Your task to perform on an android device: manage bookmarks in the chrome app Image 0: 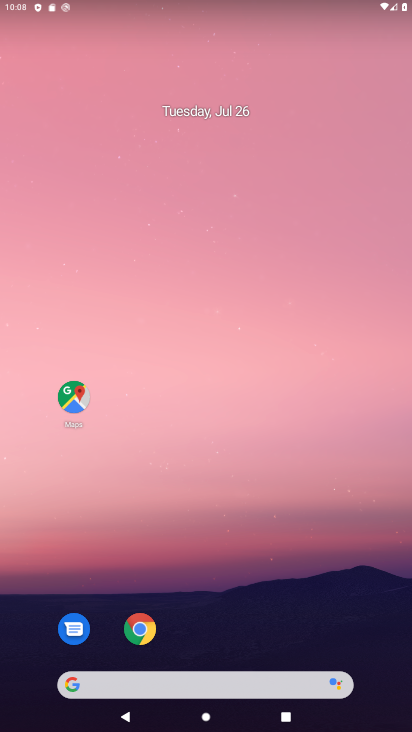
Step 0: click (155, 628)
Your task to perform on an android device: manage bookmarks in the chrome app Image 1: 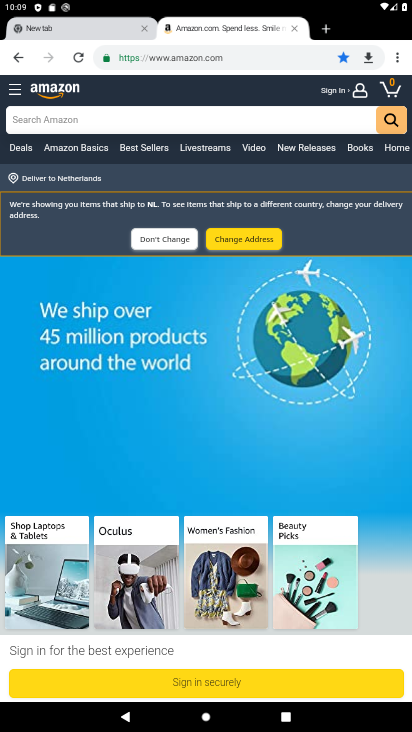
Step 1: task complete